Your task to perform on an android device: Open calendar and show me the second week of next month Image 0: 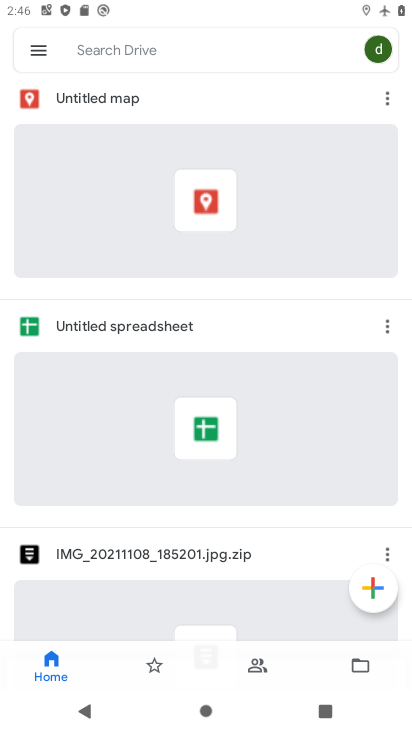
Step 0: press home button
Your task to perform on an android device: Open calendar and show me the second week of next month Image 1: 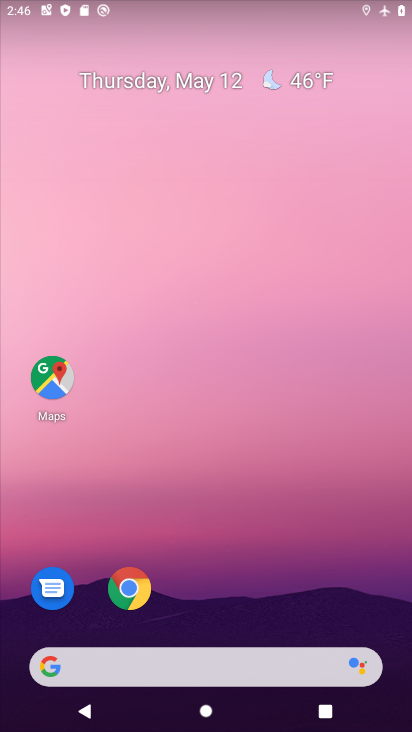
Step 1: drag from (384, 624) to (325, 88)
Your task to perform on an android device: Open calendar and show me the second week of next month Image 2: 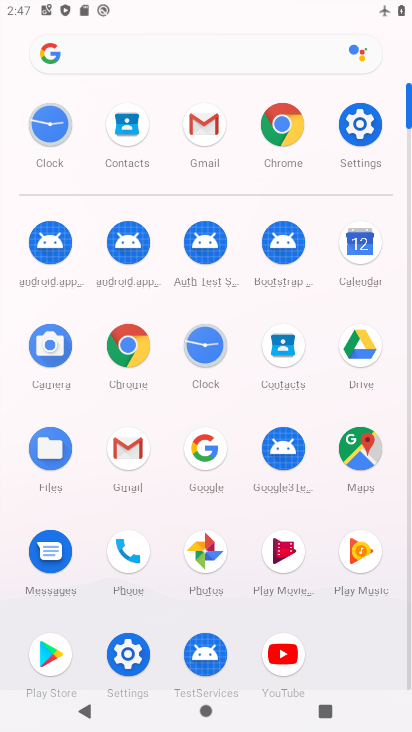
Step 2: click (351, 245)
Your task to perform on an android device: Open calendar and show me the second week of next month Image 3: 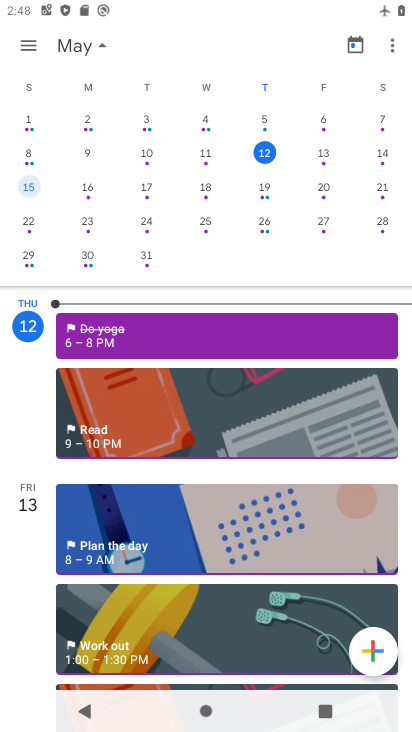
Step 3: drag from (344, 187) to (26, 196)
Your task to perform on an android device: Open calendar and show me the second week of next month Image 4: 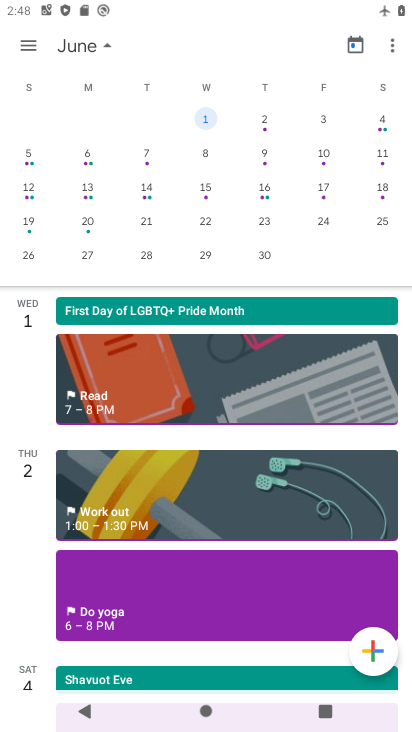
Step 4: click (31, 183)
Your task to perform on an android device: Open calendar and show me the second week of next month Image 5: 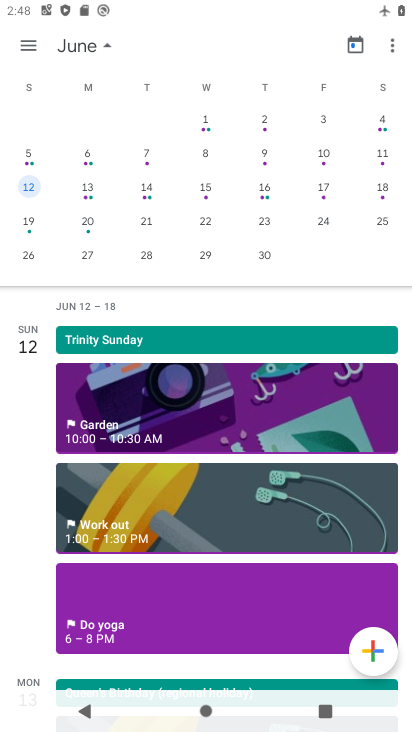
Step 5: task complete